Your task to perform on an android device: move a message to another label in the gmail app Image 0: 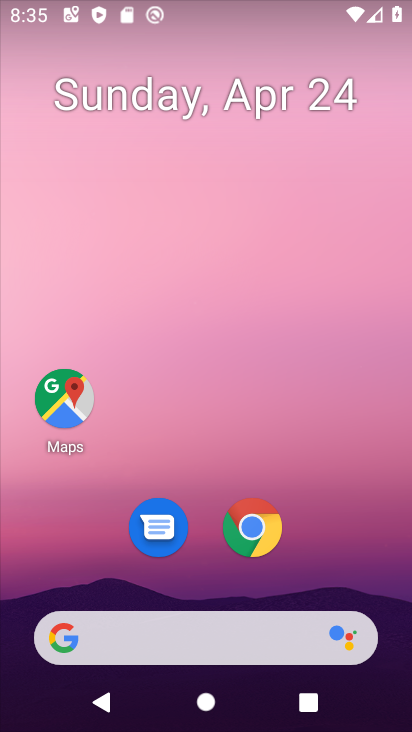
Step 0: drag from (320, 539) to (332, 52)
Your task to perform on an android device: move a message to another label in the gmail app Image 1: 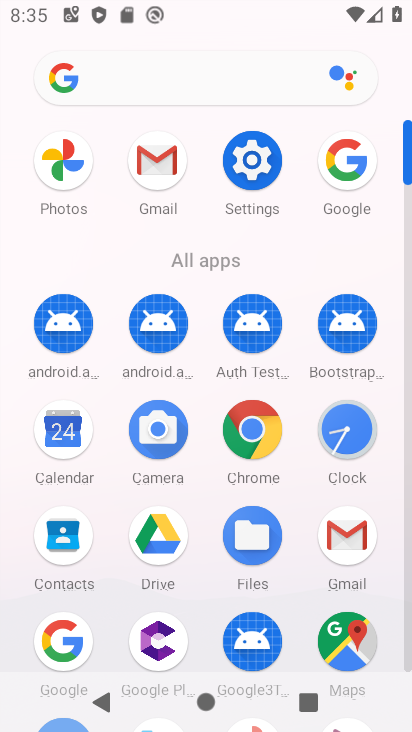
Step 1: click (159, 161)
Your task to perform on an android device: move a message to another label in the gmail app Image 2: 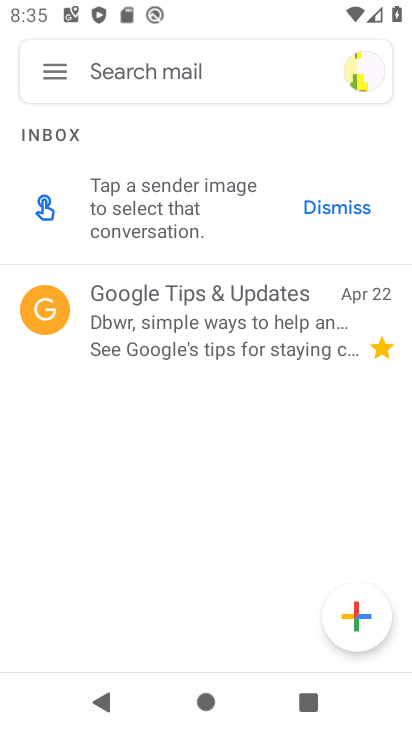
Step 2: click (315, 308)
Your task to perform on an android device: move a message to another label in the gmail app Image 3: 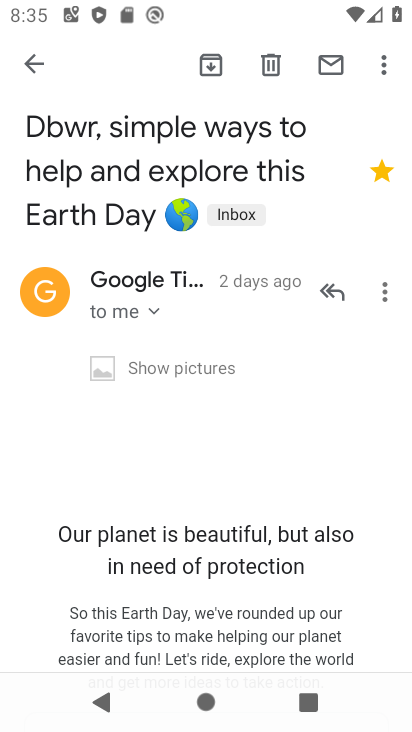
Step 3: click (378, 61)
Your task to perform on an android device: move a message to another label in the gmail app Image 4: 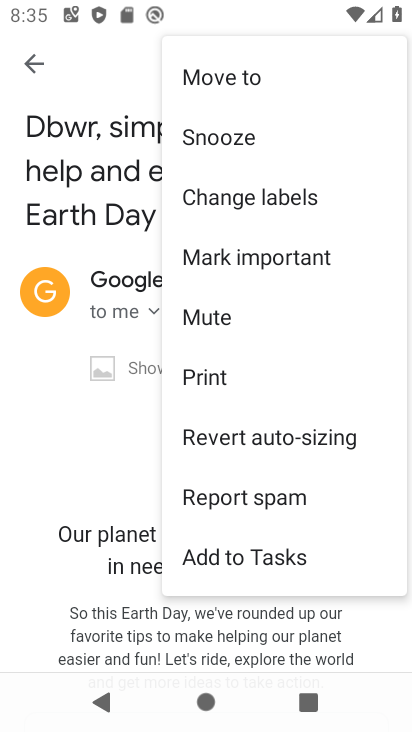
Step 4: click (240, 195)
Your task to perform on an android device: move a message to another label in the gmail app Image 5: 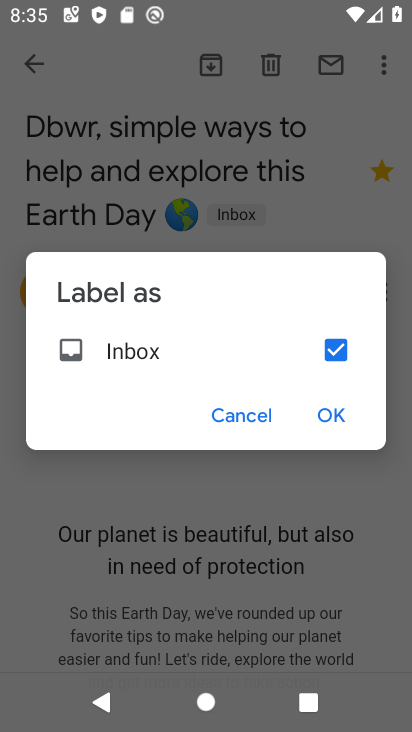
Step 5: click (328, 349)
Your task to perform on an android device: move a message to another label in the gmail app Image 6: 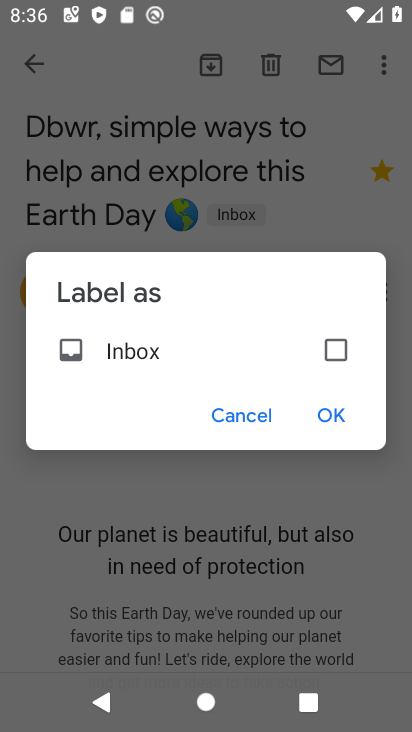
Step 6: click (332, 419)
Your task to perform on an android device: move a message to another label in the gmail app Image 7: 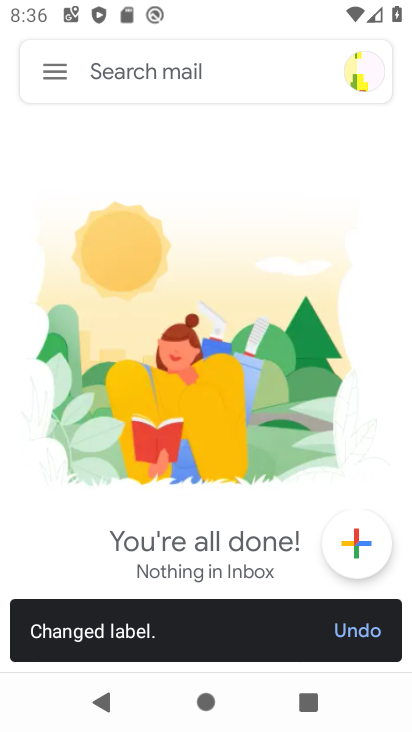
Step 7: task complete